Your task to perform on an android device: What's the weather going to be this weekend? Image 0: 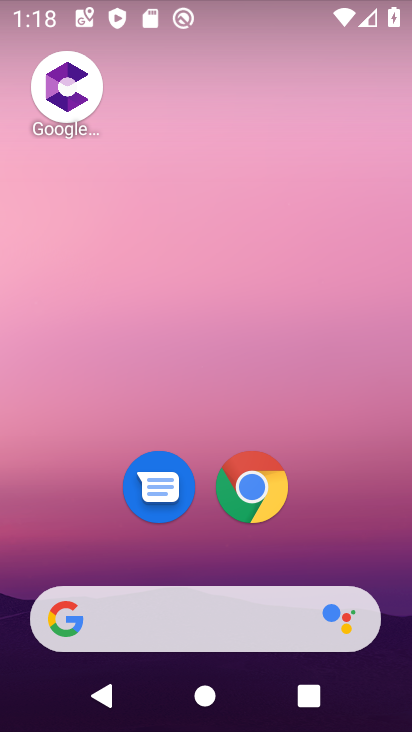
Step 0: click (210, 562)
Your task to perform on an android device: What's the weather going to be this weekend? Image 1: 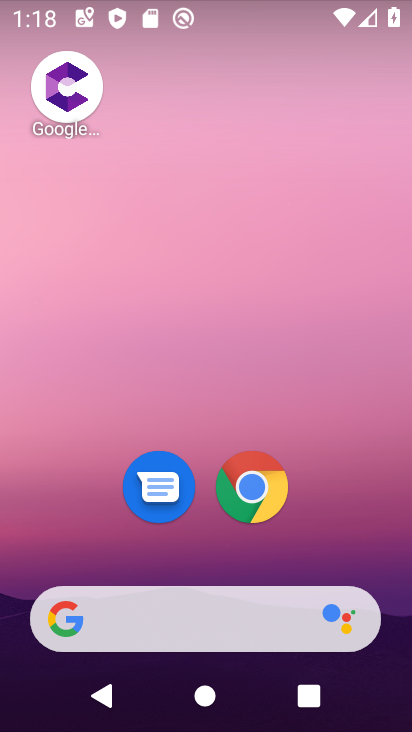
Step 1: click (210, 605)
Your task to perform on an android device: What's the weather going to be this weekend? Image 2: 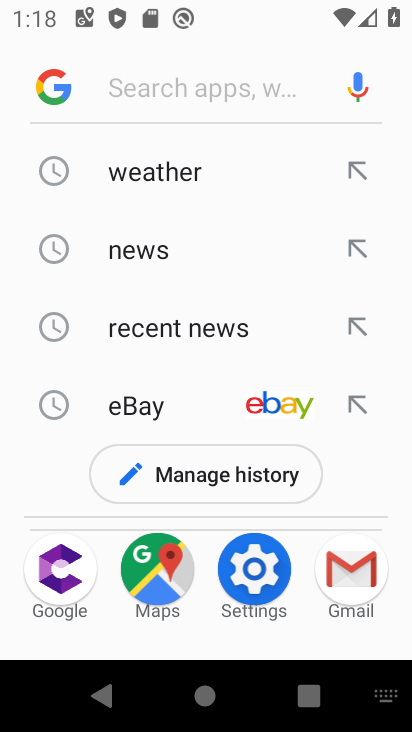
Step 2: click (115, 182)
Your task to perform on an android device: What's the weather going to be this weekend? Image 3: 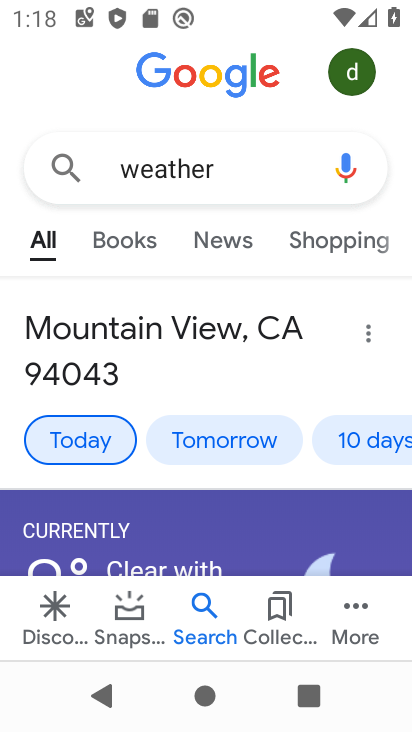
Step 3: click (354, 439)
Your task to perform on an android device: What's the weather going to be this weekend? Image 4: 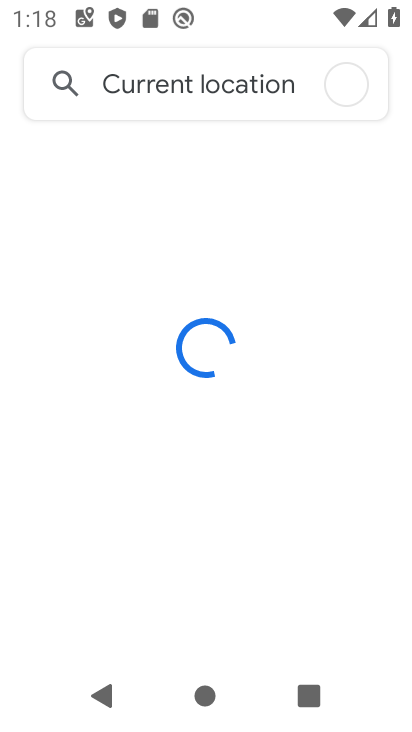
Step 4: click (354, 439)
Your task to perform on an android device: What's the weather going to be this weekend? Image 5: 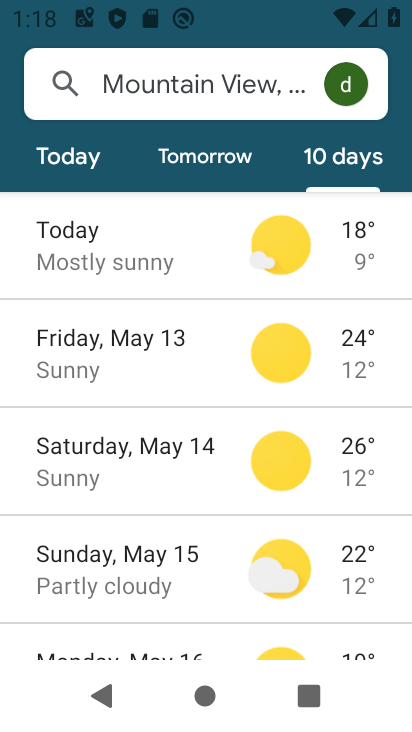
Step 5: task complete